Your task to perform on an android device: Search for Mexican restaurants on Maps Image 0: 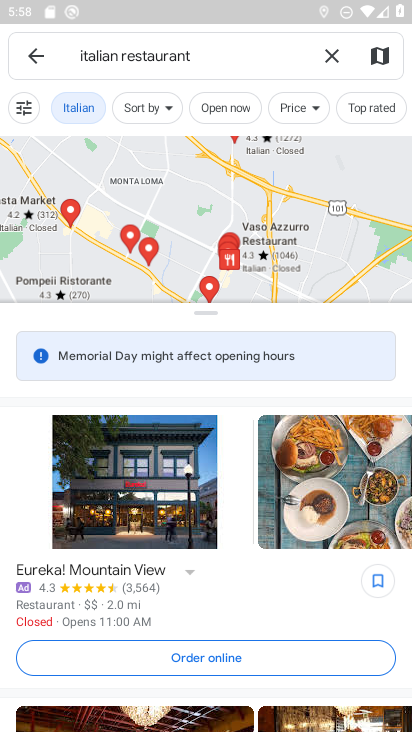
Step 0: click (332, 64)
Your task to perform on an android device: Search for Mexican restaurants on Maps Image 1: 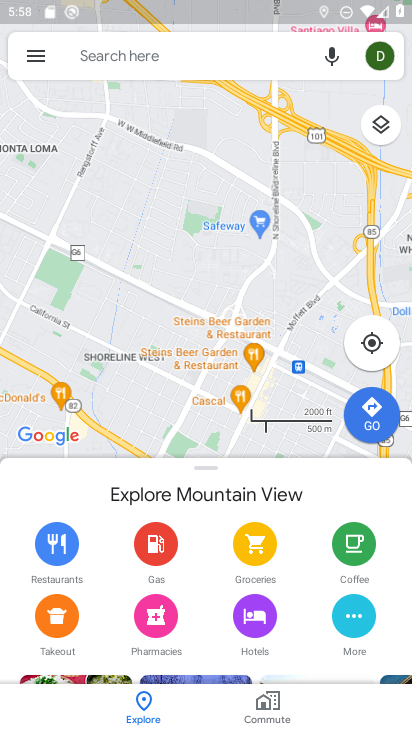
Step 1: click (186, 49)
Your task to perform on an android device: Search for Mexican restaurants on Maps Image 2: 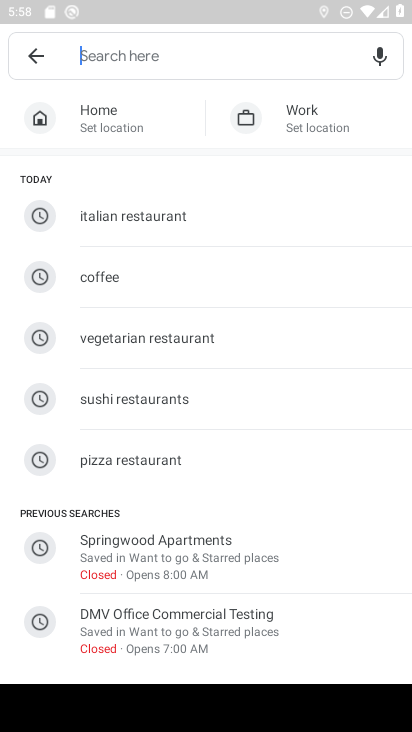
Step 2: type "mexican resyurant"
Your task to perform on an android device: Search for Mexican restaurants on Maps Image 3: 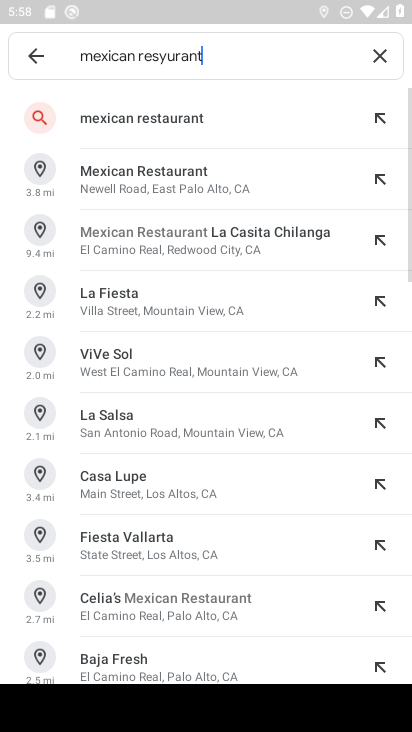
Step 3: click (168, 130)
Your task to perform on an android device: Search for Mexican restaurants on Maps Image 4: 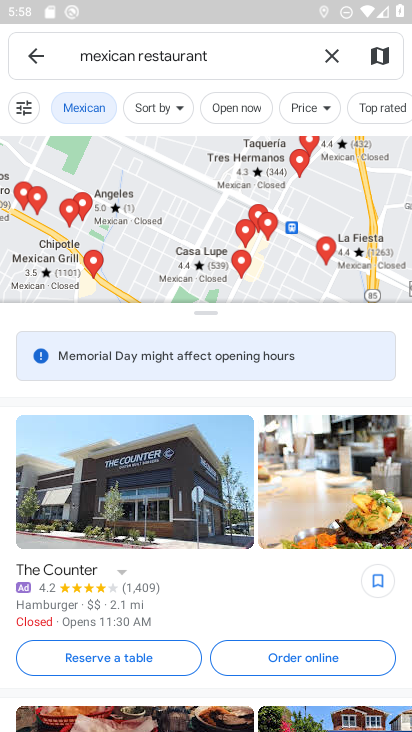
Step 4: task complete